Your task to perform on an android device: Search for Mexican restaurants on Maps Image 0: 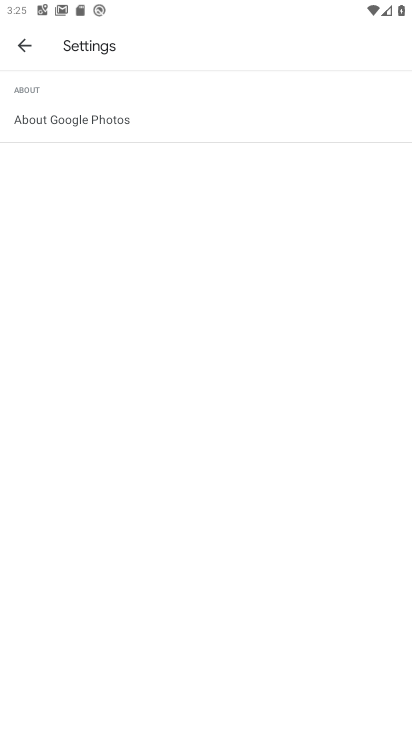
Step 0: press home button
Your task to perform on an android device: Search for Mexican restaurants on Maps Image 1: 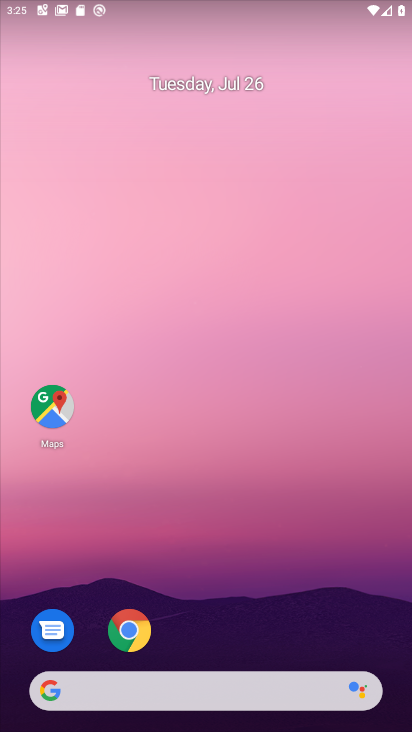
Step 1: click (75, 408)
Your task to perform on an android device: Search for Mexican restaurants on Maps Image 2: 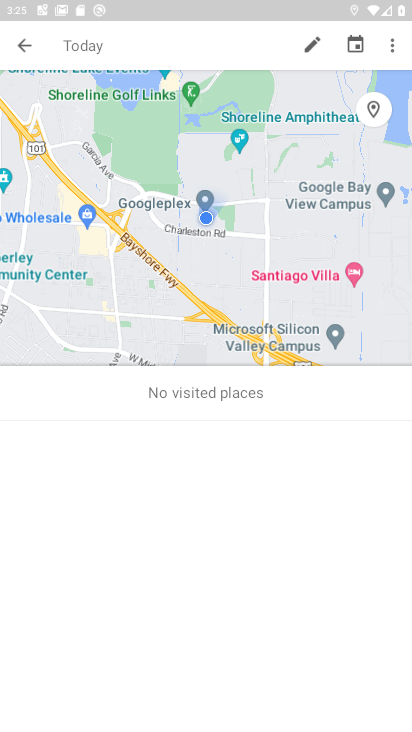
Step 2: click (26, 49)
Your task to perform on an android device: Search for Mexican restaurants on Maps Image 3: 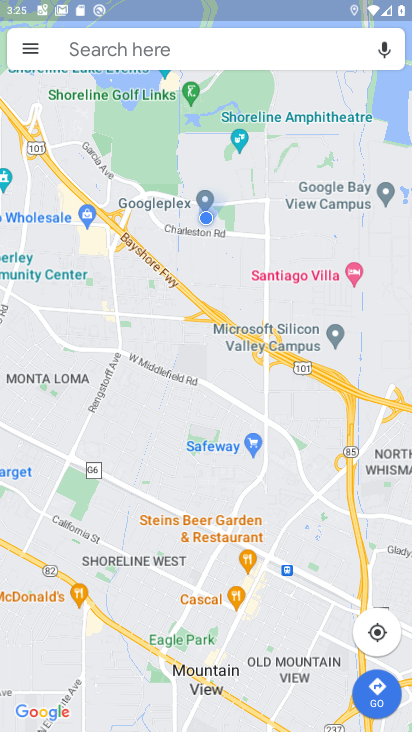
Step 3: click (122, 50)
Your task to perform on an android device: Search for Mexican restaurants on Maps Image 4: 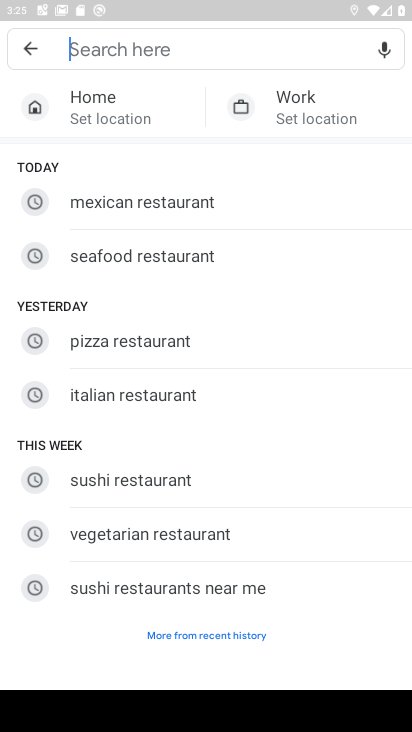
Step 4: click (170, 224)
Your task to perform on an android device: Search for Mexican restaurants on Maps Image 5: 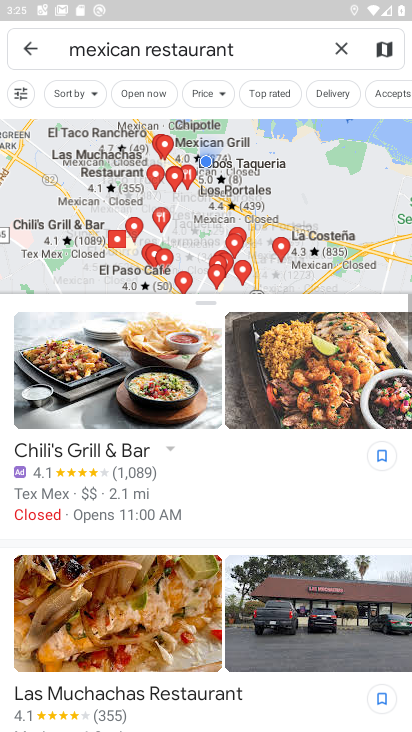
Step 5: task complete